Your task to perform on an android device: What is the news today? Image 0: 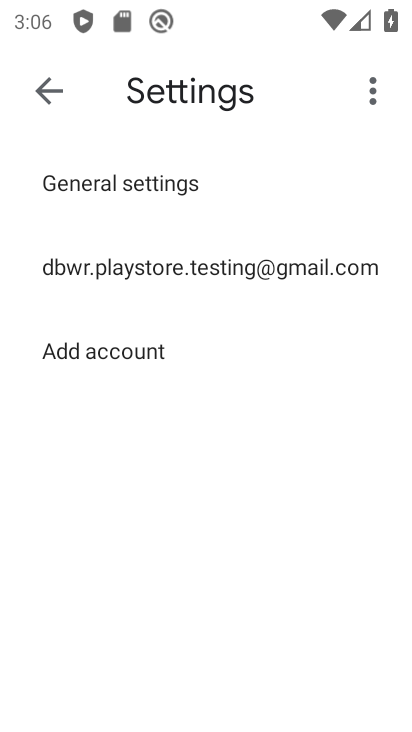
Step 0: press home button
Your task to perform on an android device: What is the news today? Image 1: 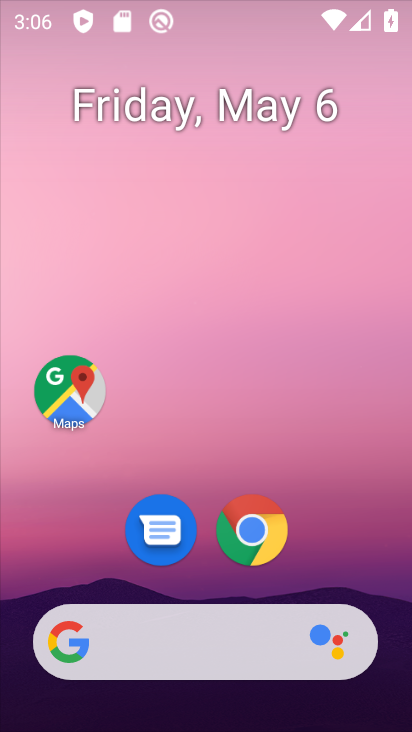
Step 1: drag from (209, 619) to (213, 60)
Your task to perform on an android device: What is the news today? Image 2: 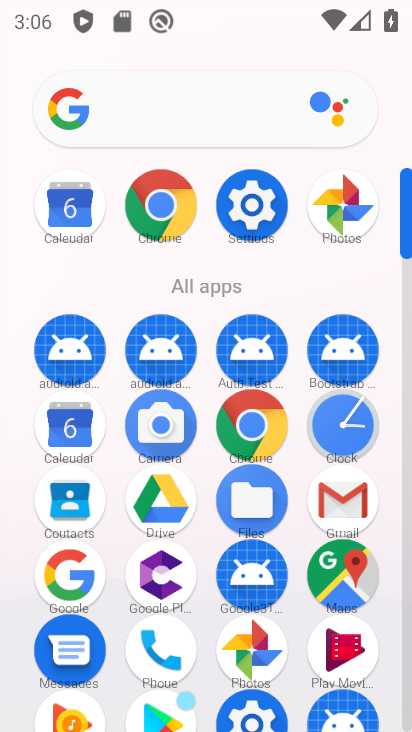
Step 2: click (73, 587)
Your task to perform on an android device: What is the news today? Image 3: 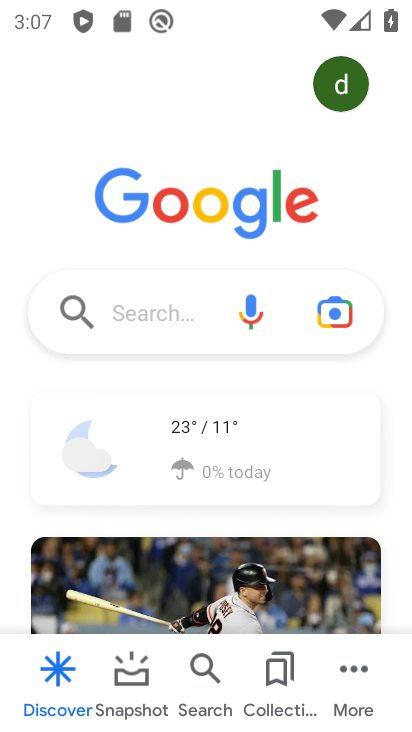
Step 3: click (182, 306)
Your task to perform on an android device: What is the news today? Image 4: 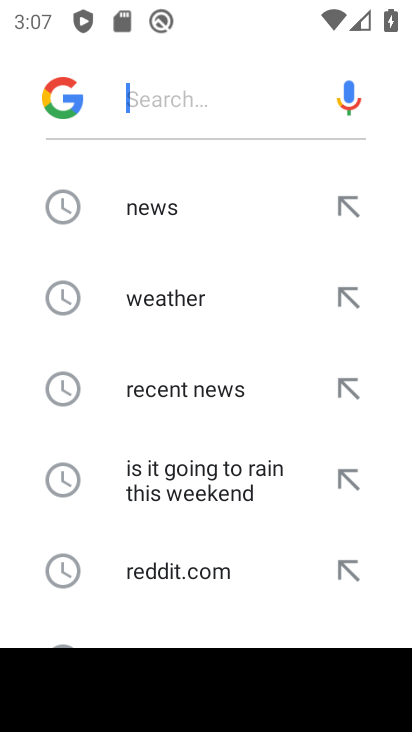
Step 4: click (173, 204)
Your task to perform on an android device: What is the news today? Image 5: 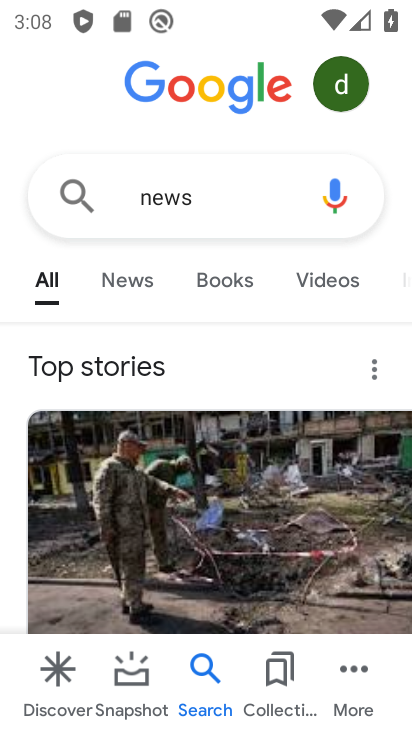
Step 5: click (116, 279)
Your task to perform on an android device: What is the news today? Image 6: 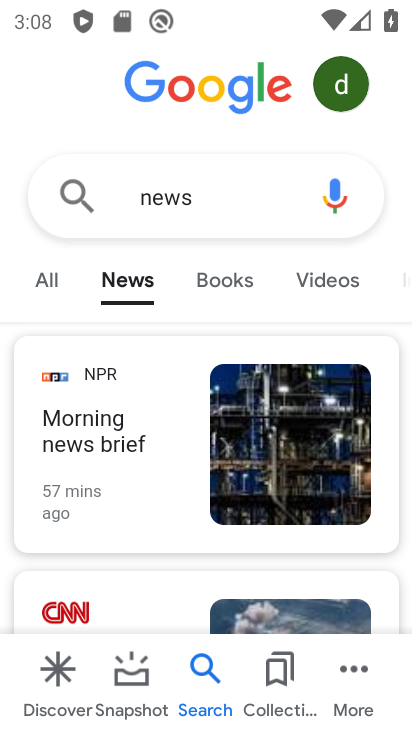
Step 6: task complete